Your task to perform on an android device: change text size in settings app Image 0: 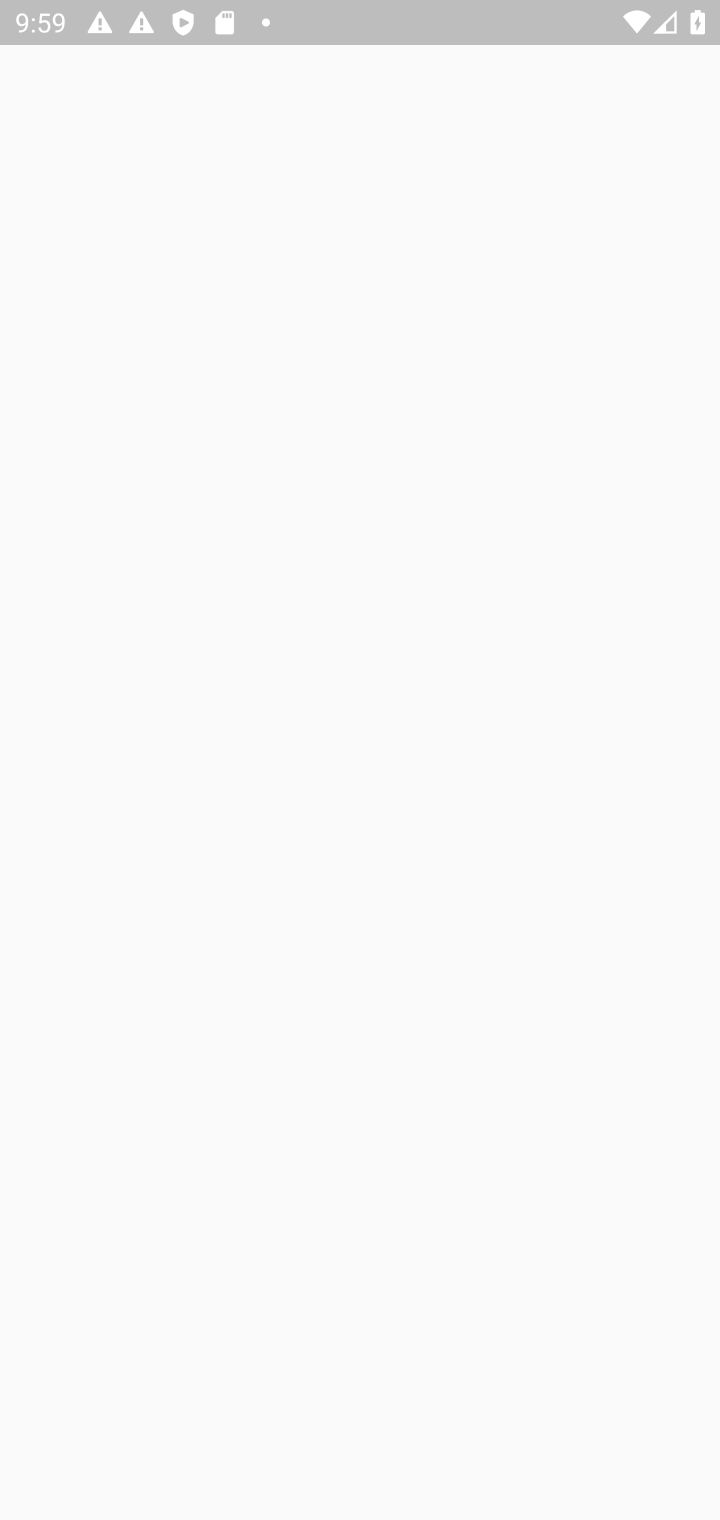
Step 0: press home button
Your task to perform on an android device: change text size in settings app Image 1: 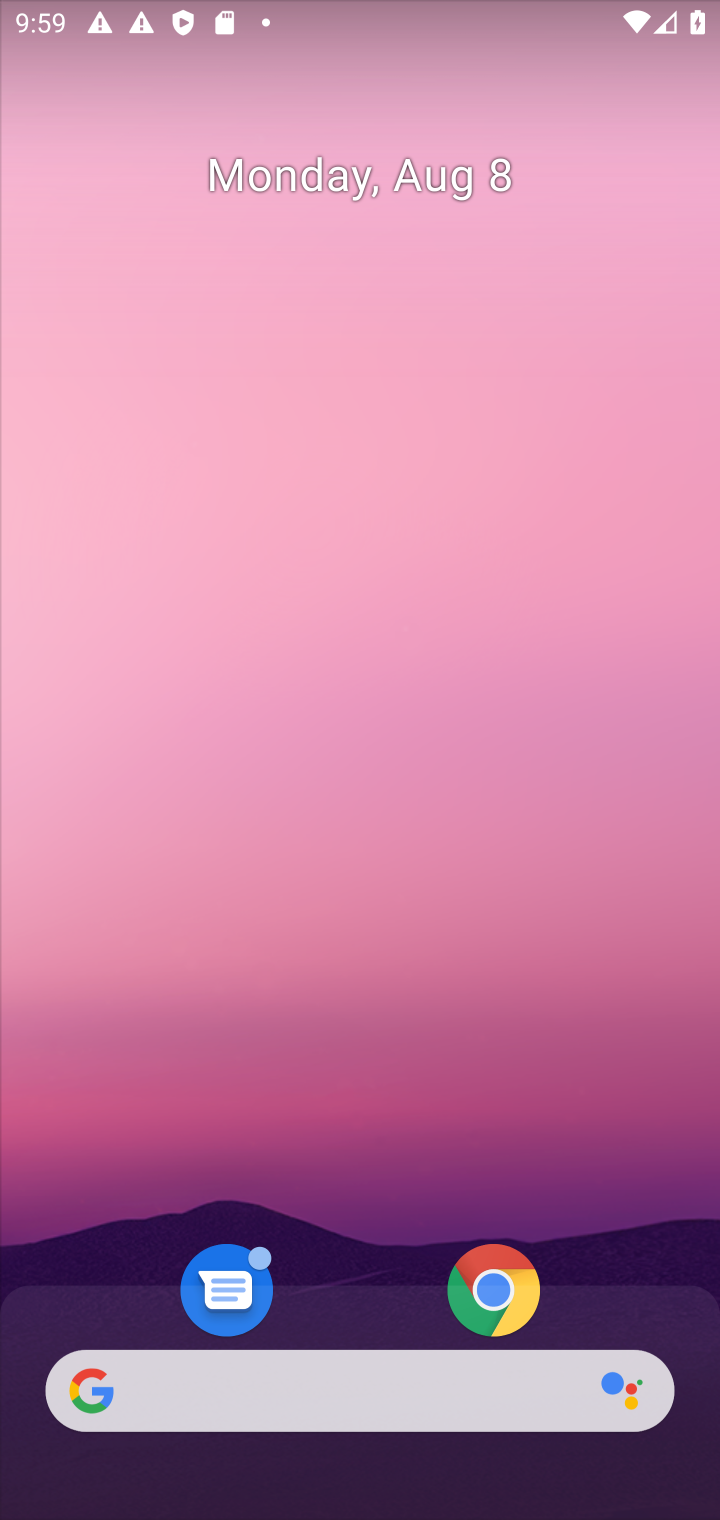
Step 1: drag from (353, 452) to (477, 8)
Your task to perform on an android device: change text size in settings app Image 2: 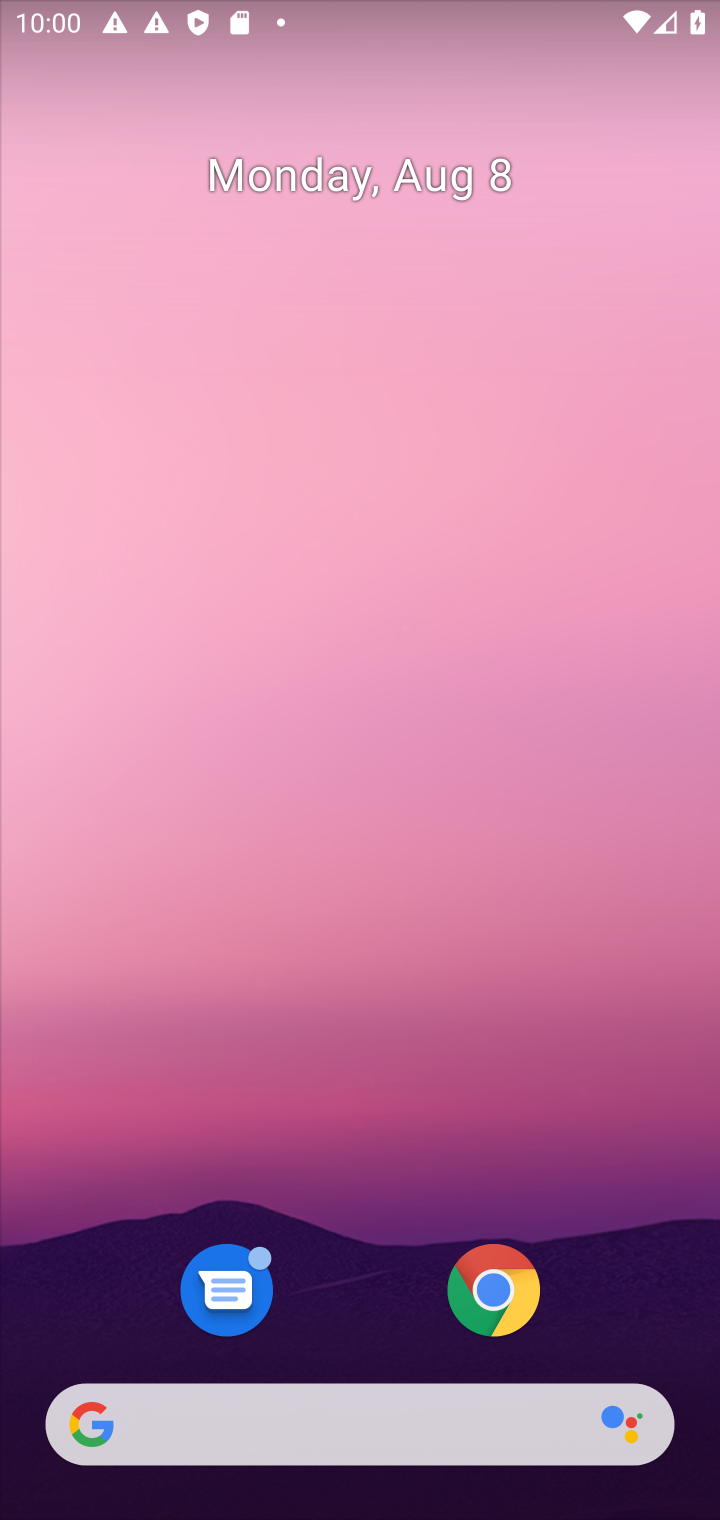
Step 2: drag from (365, 95) to (508, 2)
Your task to perform on an android device: change text size in settings app Image 3: 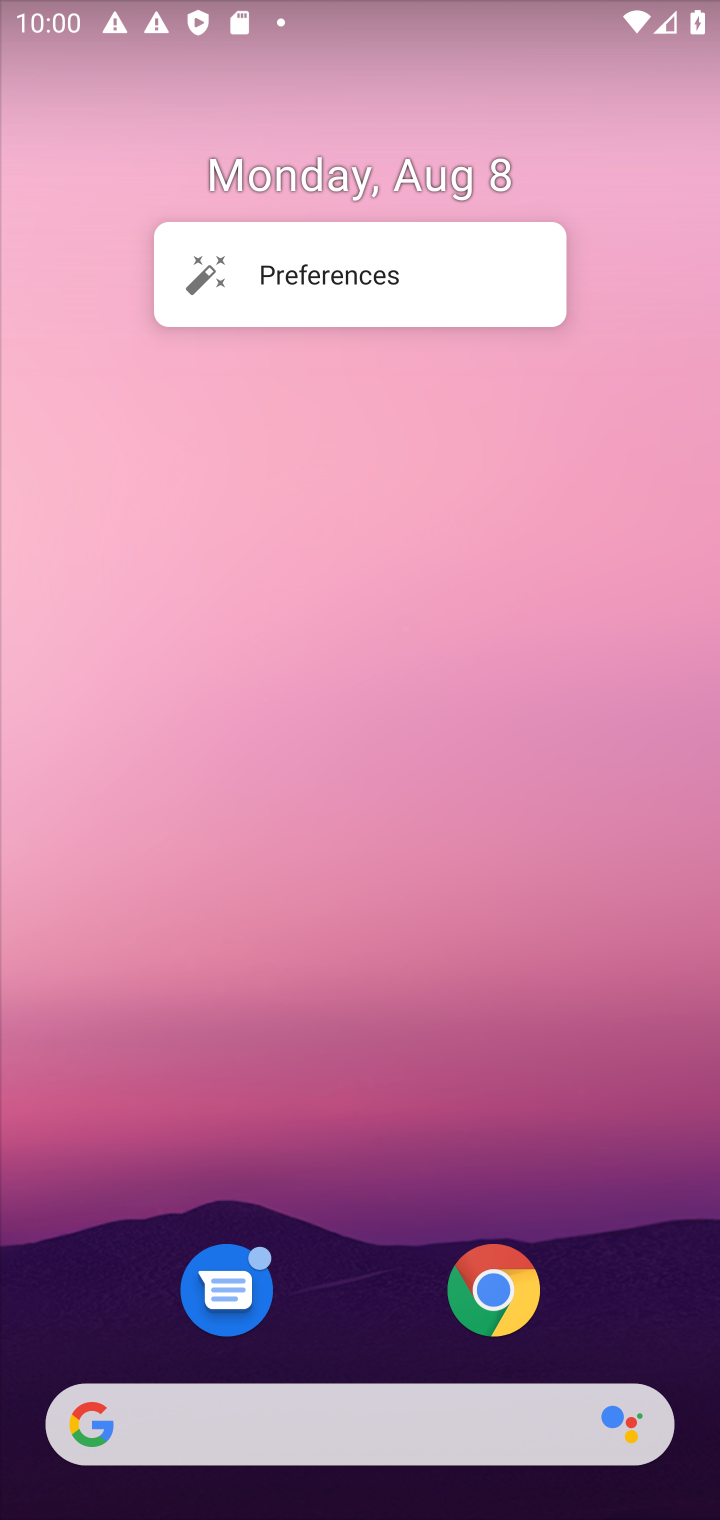
Step 3: click (336, 1109)
Your task to perform on an android device: change text size in settings app Image 4: 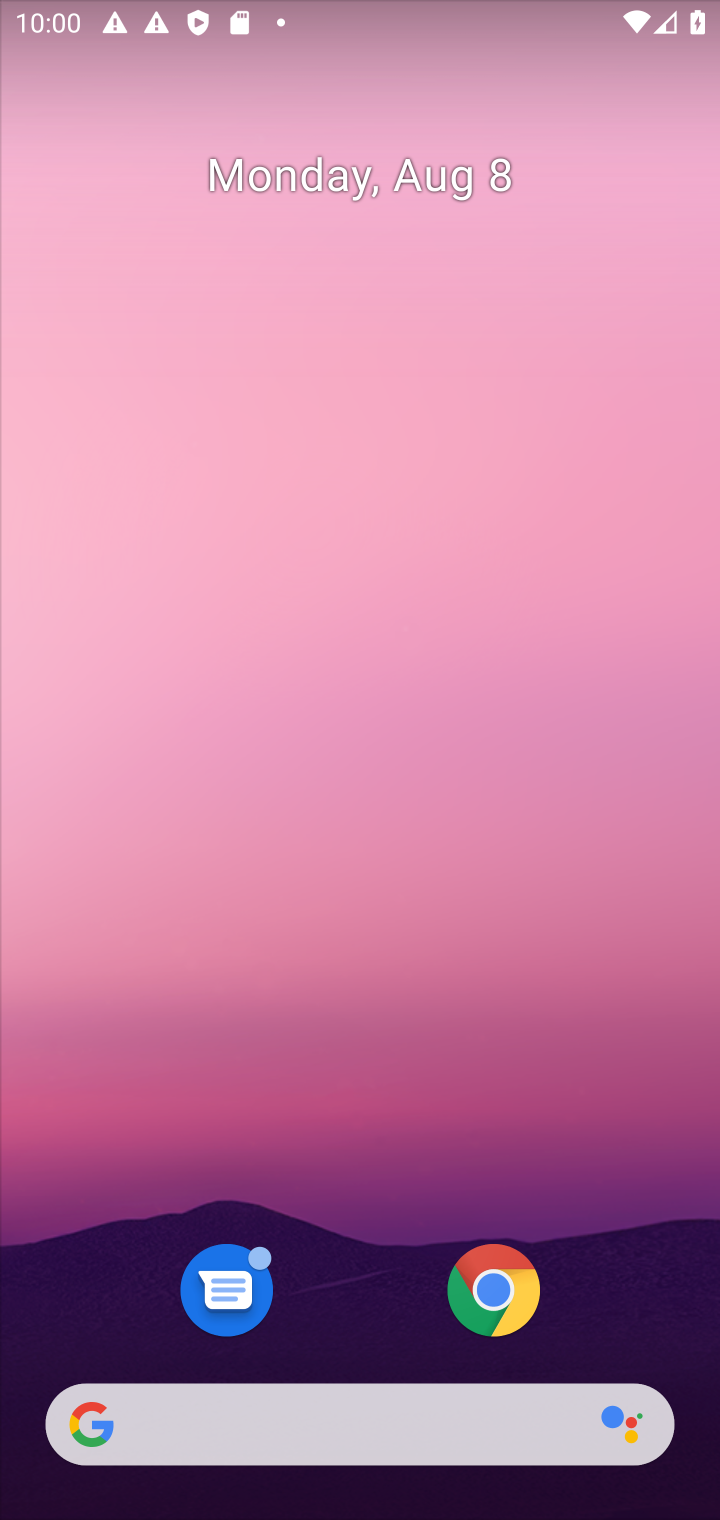
Step 4: drag from (336, 1238) to (617, 15)
Your task to perform on an android device: change text size in settings app Image 5: 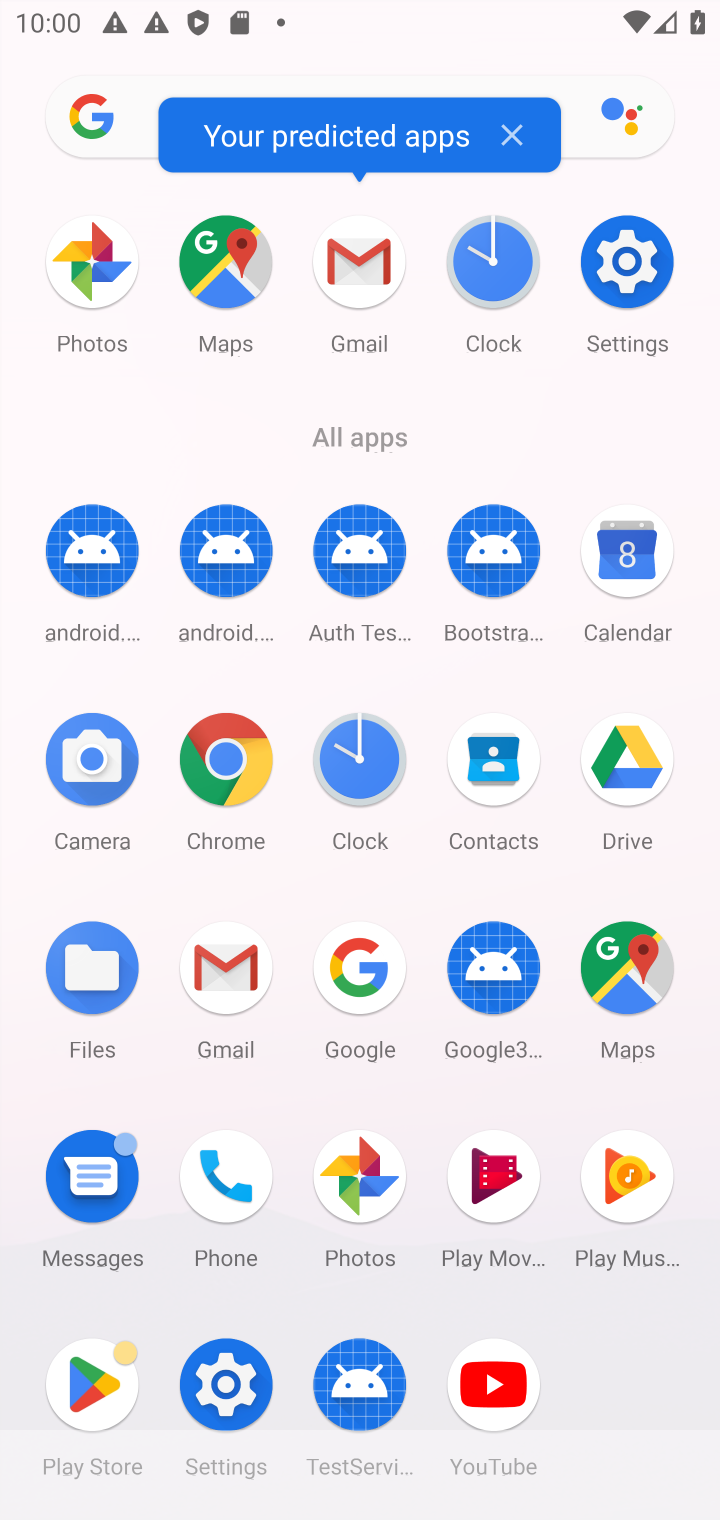
Step 5: click (229, 1389)
Your task to perform on an android device: change text size in settings app Image 6: 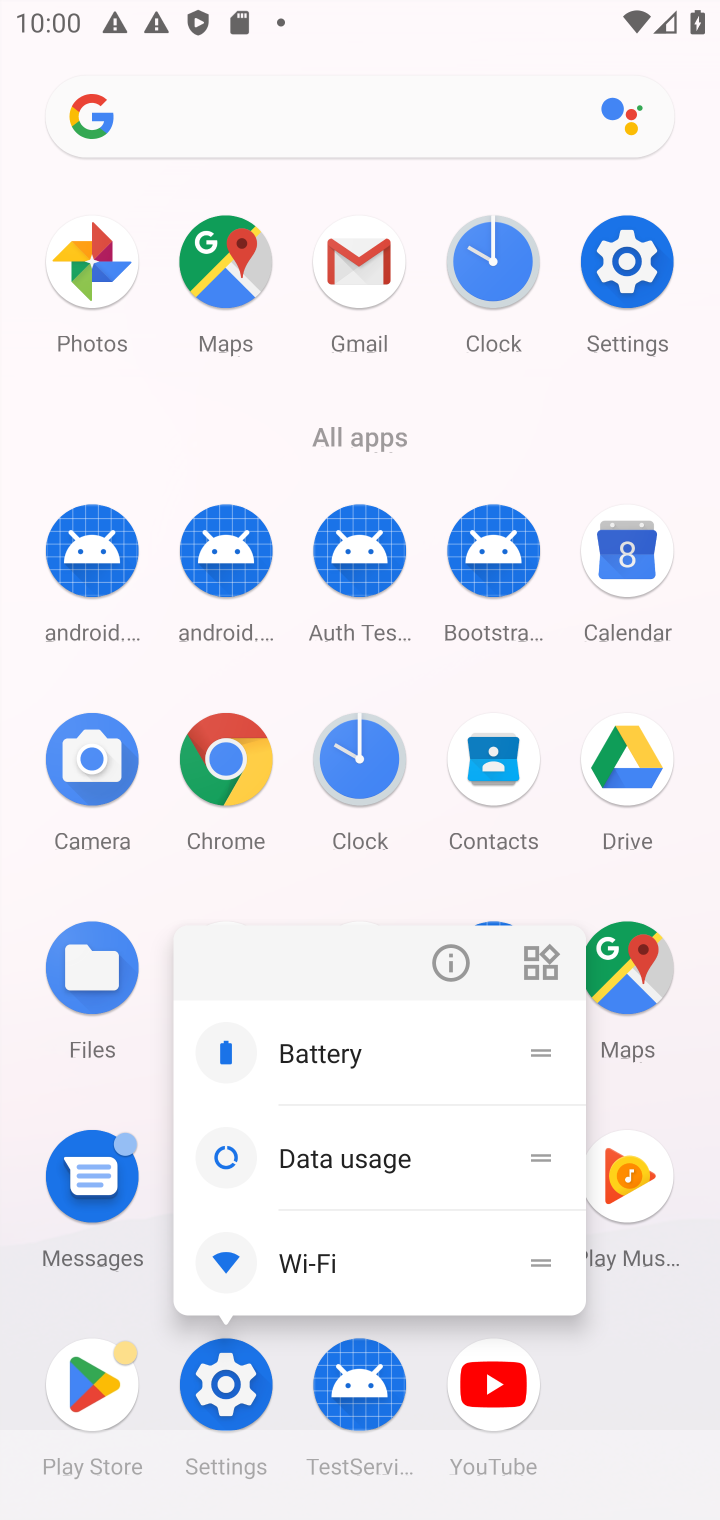
Step 6: click (210, 1391)
Your task to perform on an android device: change text size in settings app Image 7: 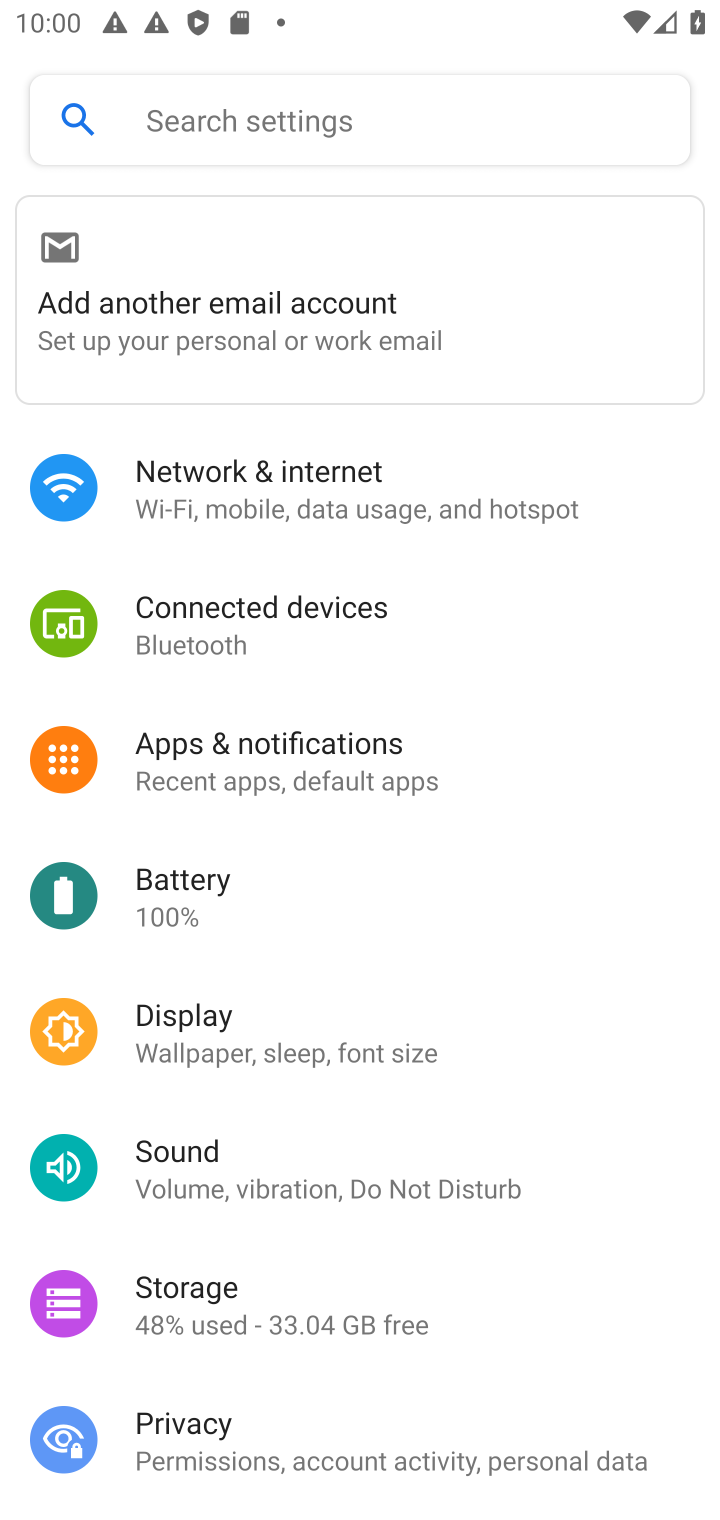
Step 7: click (244, 1063)
Your task to perform on an android device: change text size in settings app Image 8: 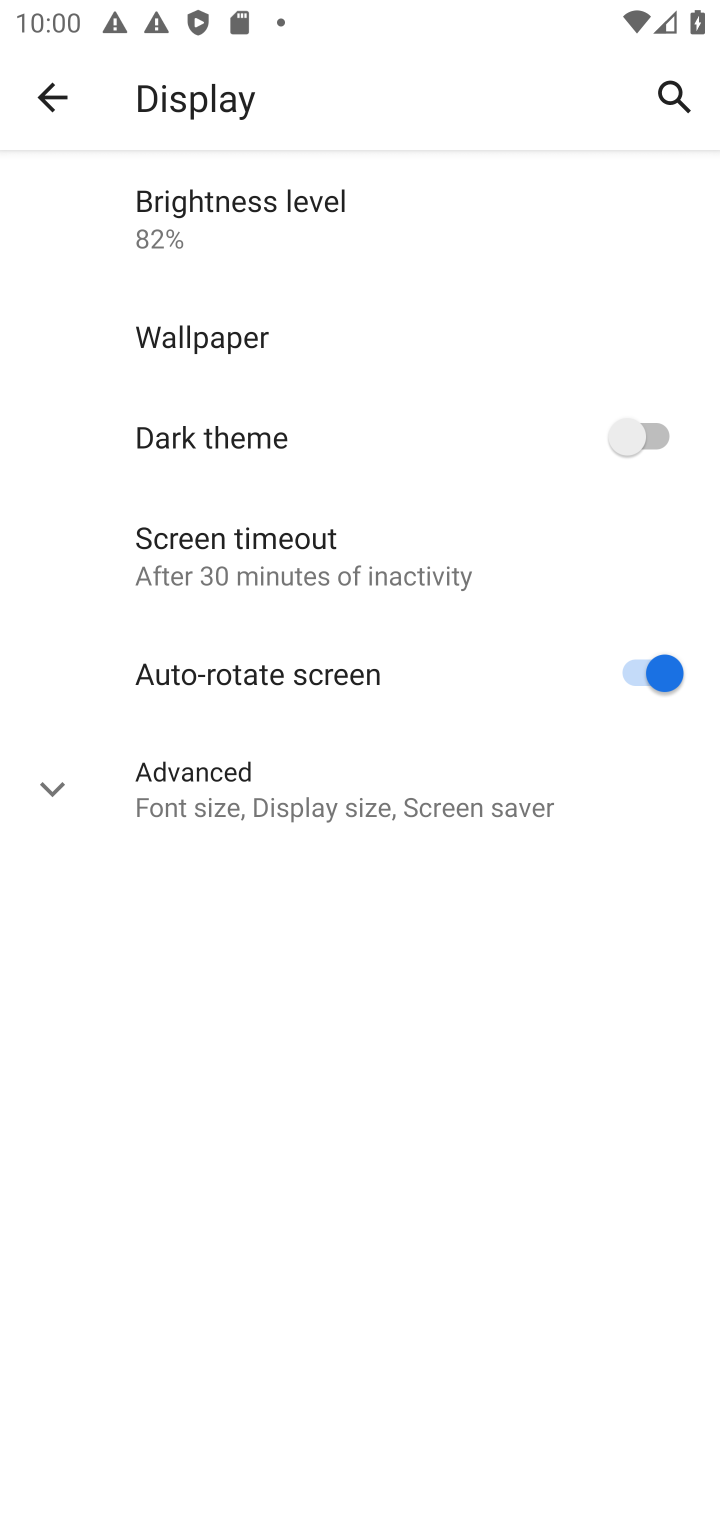
Step 8: click (221, 801)
Your task to perform on an android device: change text size in settings app Image 9: 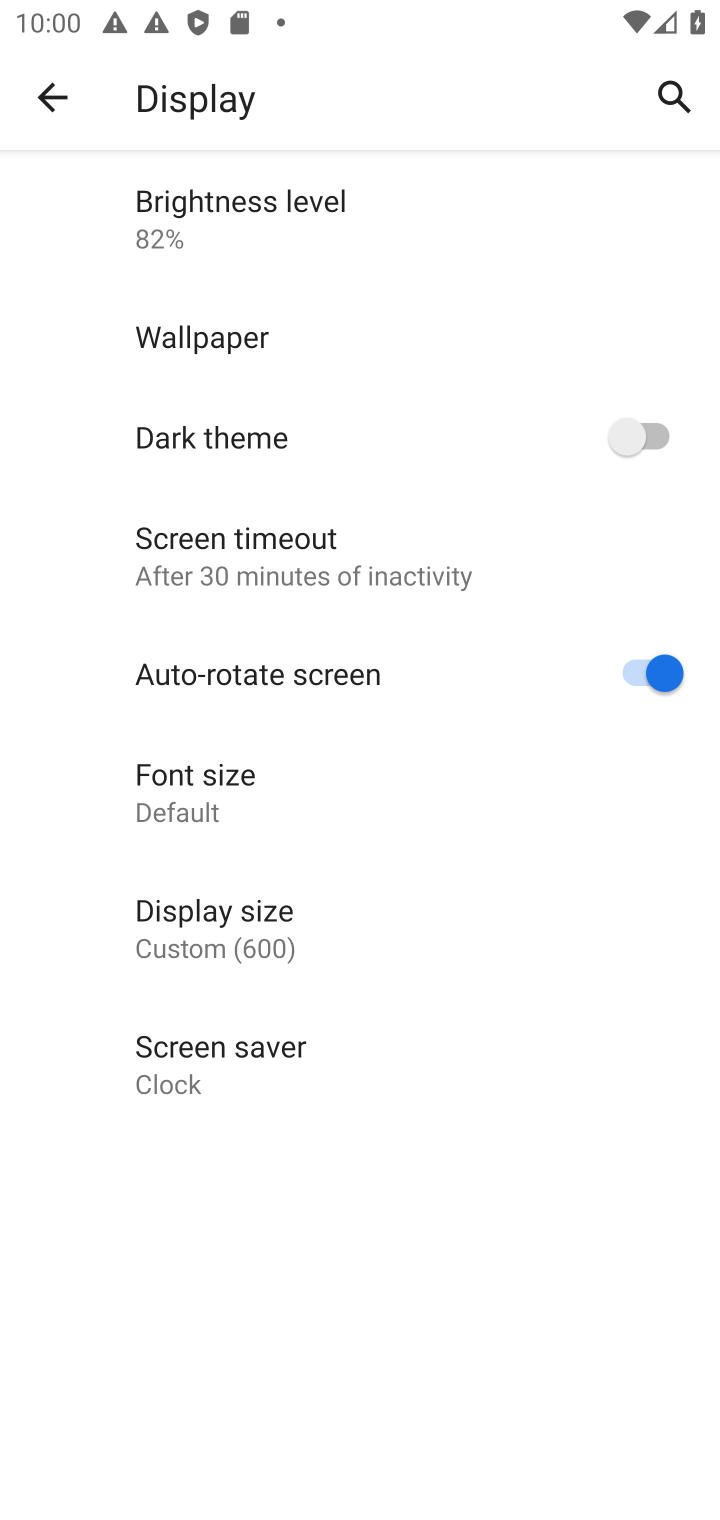
Step 9: click (239, 791)
Your task to perform on an android device: change text size in settings app Image 10: 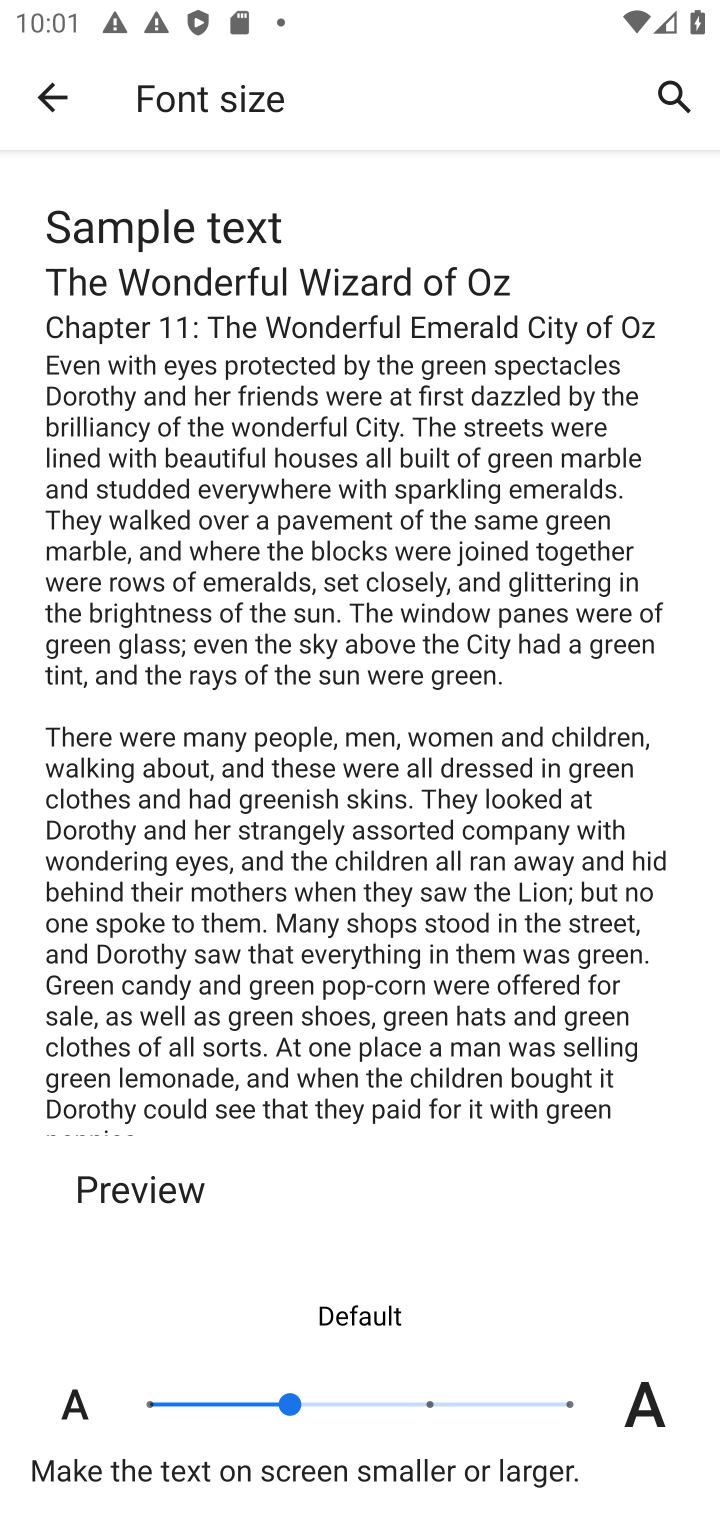
Step 10: click (416, 1399)
Your task to perform on an android device: change text size in settings app Image 11: 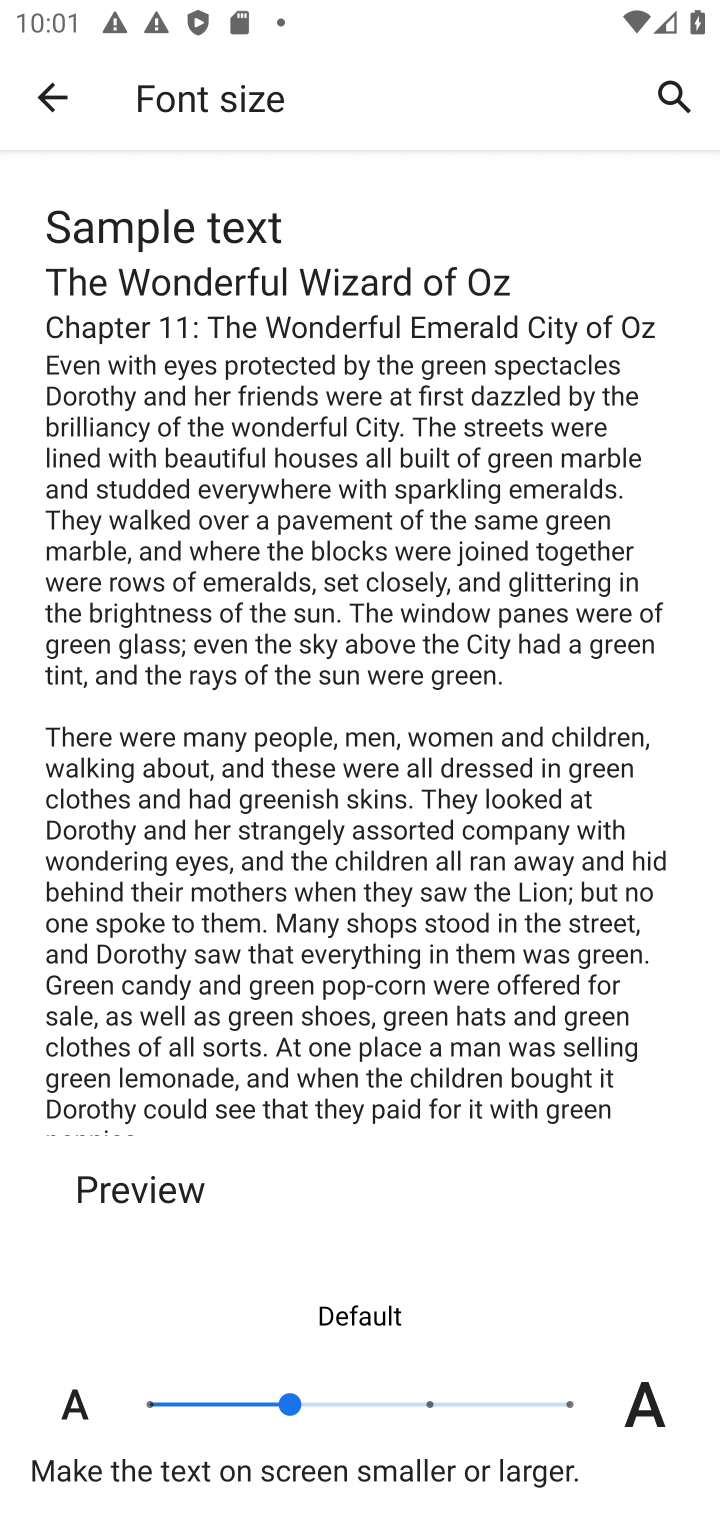
Step 11: task complete